Your task to perform on an android device: Open privacy settings Image 0: 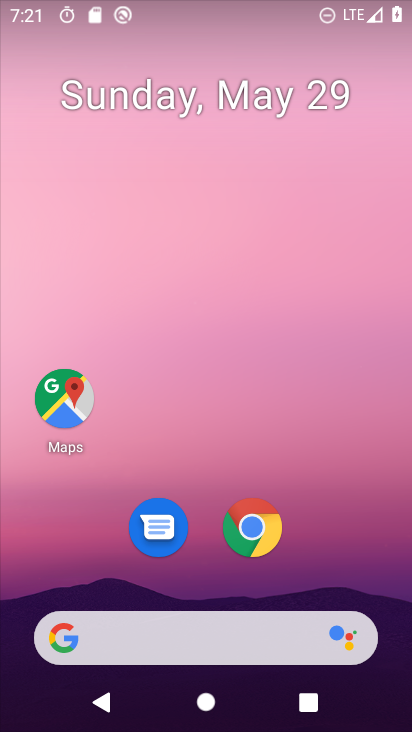
Step 0: drag from (388, 643) to (298, 138)
Your task to perform on an android device: Open privacy settings Image 1: 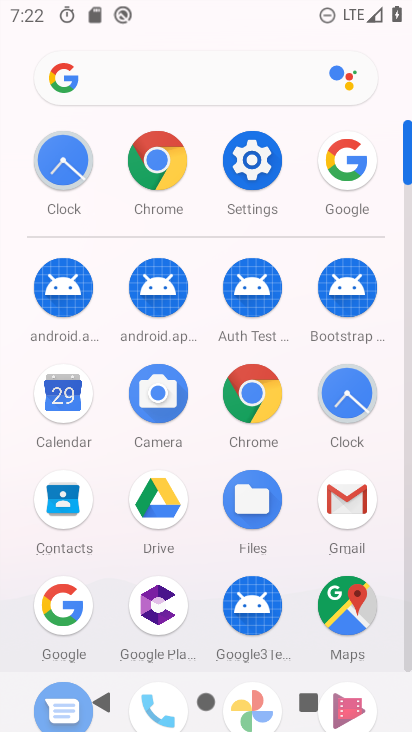
Step 1: click (243, 170)
Your task to perform on an android device: Open privacy settings Image 2: 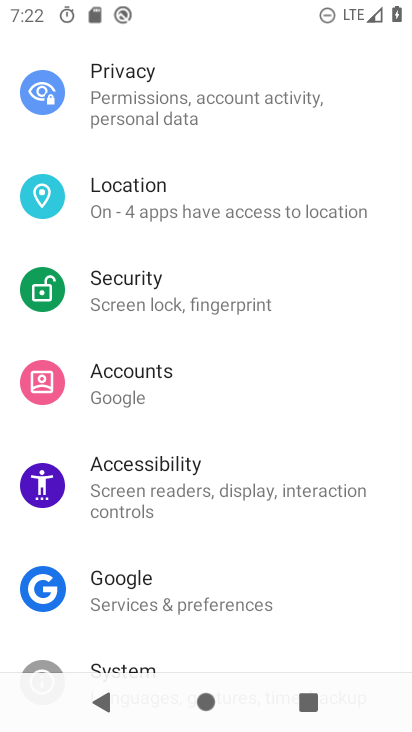
Step 2: click (156, 108)
Your task to perform on an android device: Open privacy settings Image 3: 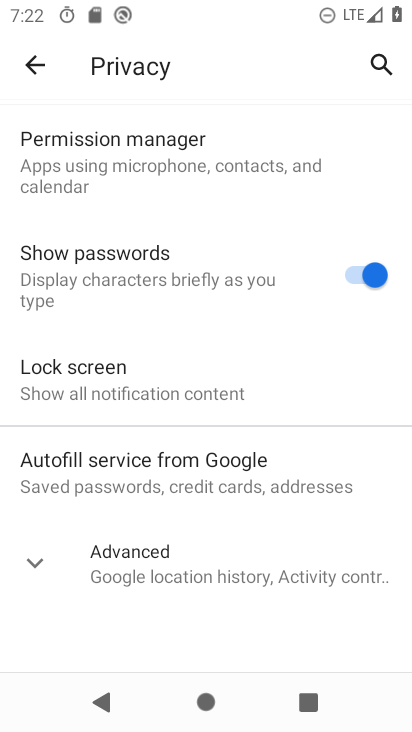
Step 3: task complete